Your task to perform on an android device: Open my contact list Image 0: 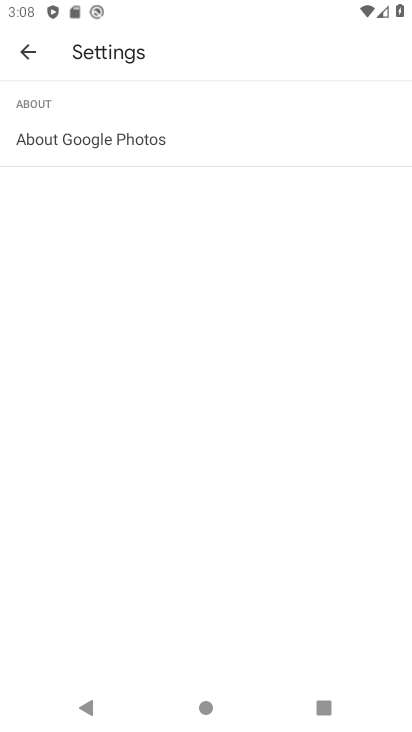
Step 0: press home button
Your task to perform on an android device: Open my contact list Image 1: 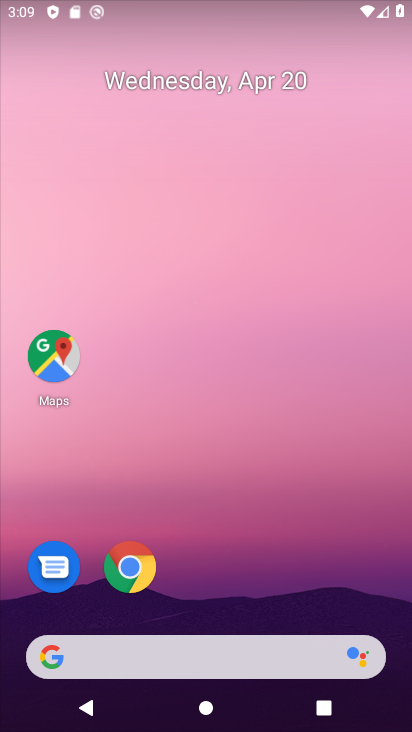
Step 1: drag from (362, 609) to (325, 216)
Your task to perform on an android device: Open my contact list Image 2: 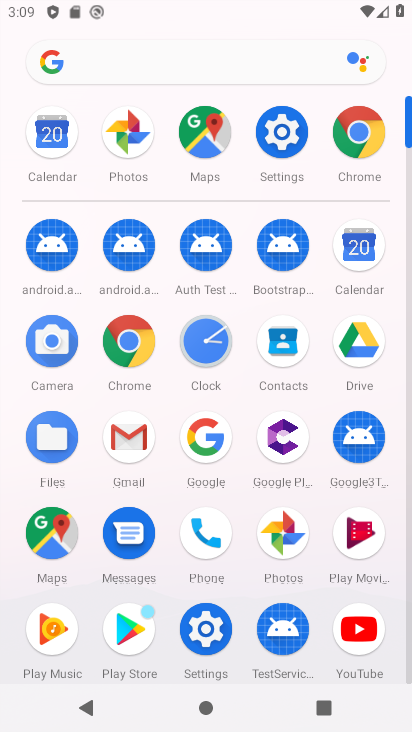
Step 2: click (289, 352)
Your task to perform on an android device: Open my contact list Image 3: 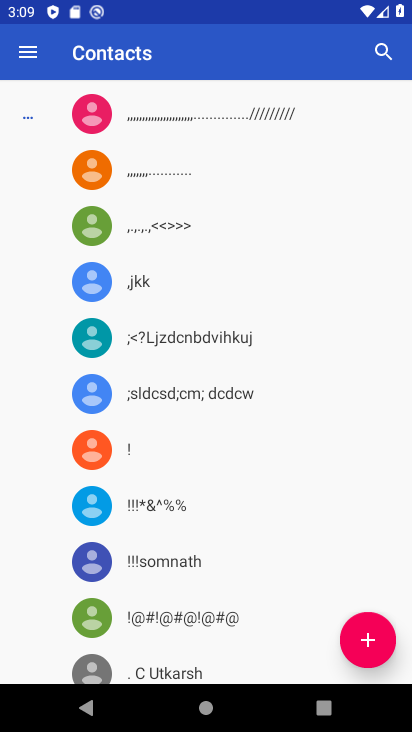
Step 3: task complete